Your task to perform on an android device: Play the last video I watched on Youtube Image 0: 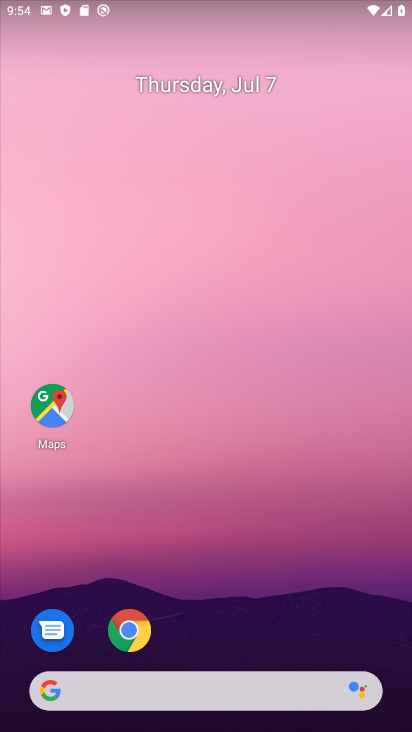
Step 0: click (146, 116)
Your task to perform on an android device: Play the last video I watched on Youtube Image 1: 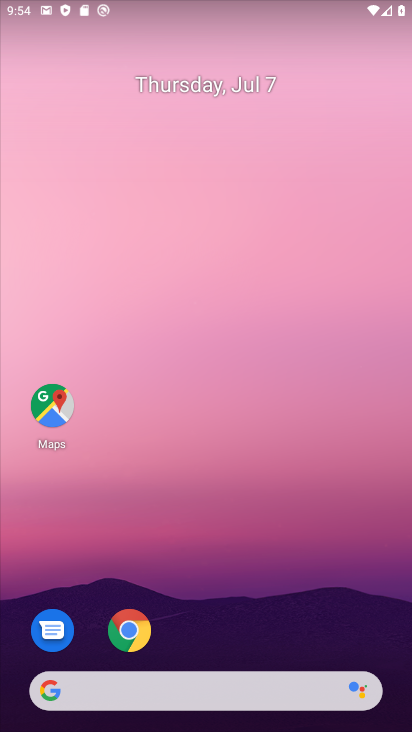
Step 1: drag from (15, 703) to (180, 10)
Your task to perform on an android device: Play the last video I watched on Youtube Image 2: 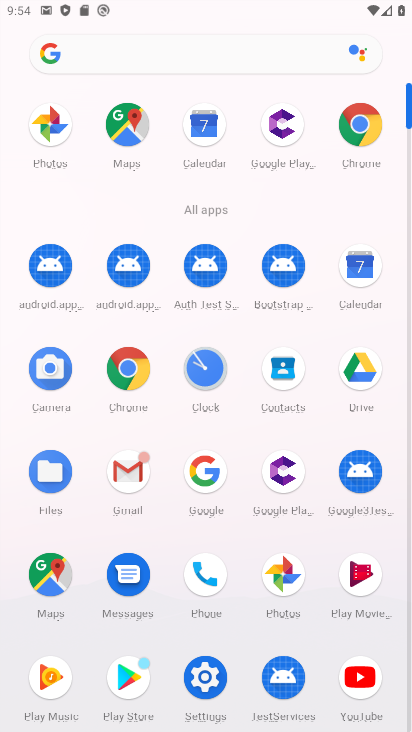
Step 2: click (365, 683)
Your task to perform on an android device: Play the last video I watched on Youtube Image 3: 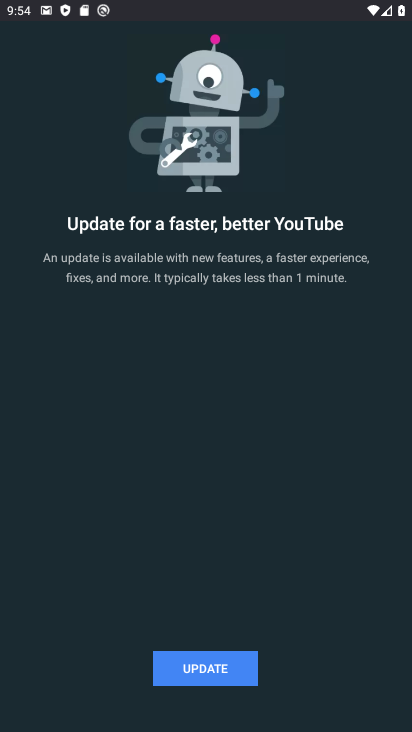
Step 3: click (192, 668)
Your task to perform on an android device: Play the last video I watched on Youtube Image 4: 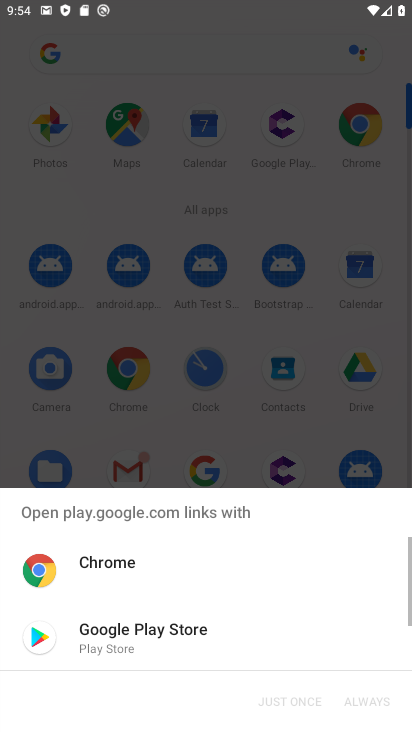
Step 4: click (129, 617)
Your task to perform on an android device: Play the last video I watched on Youtube Image 5: 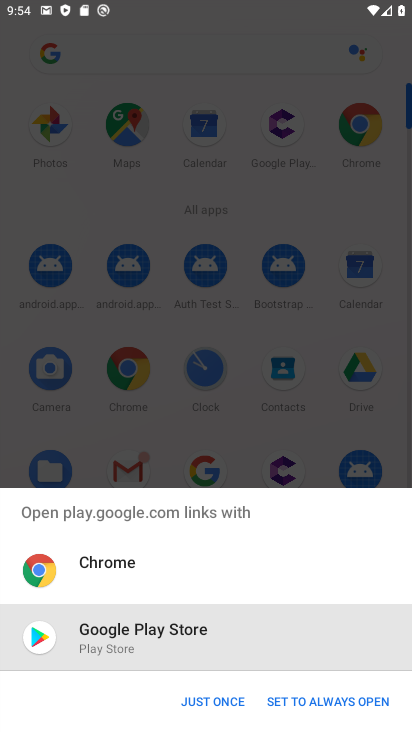
Step 5: click (184, 706)
Your task to perform on an android device: Play the last video I watched on Youtube Image 6: 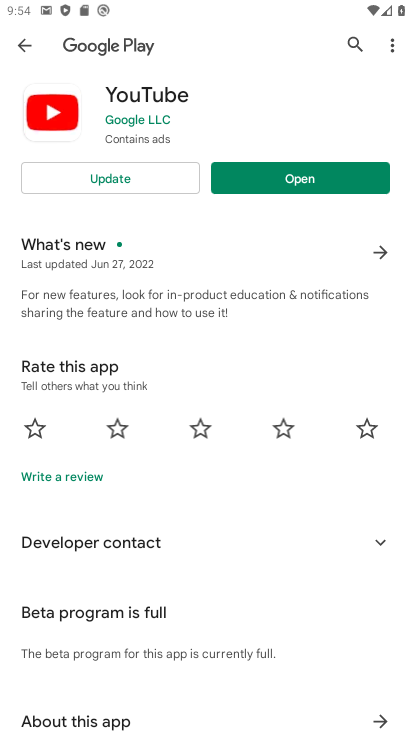
Step 6: click (291, 182)
Your task to perform on an android device: Play the last video I watched on Youtube Image 7: 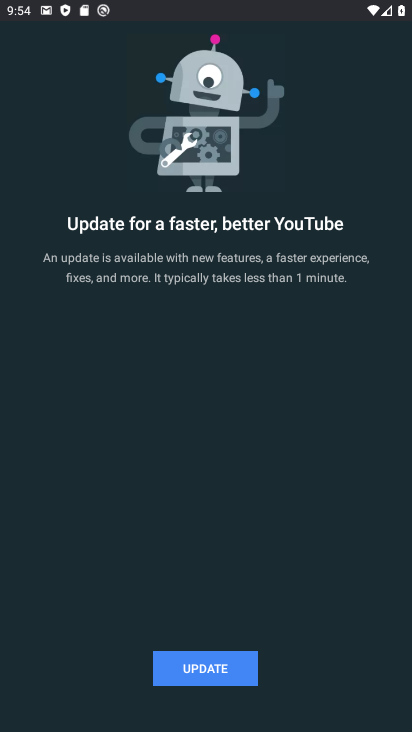
Step 7: click (207, 656)
Your task to perform on an android device: Play the last video I watched on Youtube Image 8: 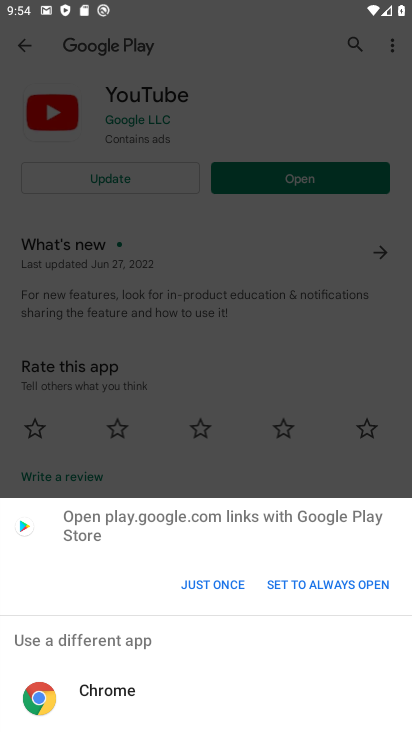
Step 8: click (212, 586)
Your task to perform on an android device: Play the last video I watched on Youtube Image 9: 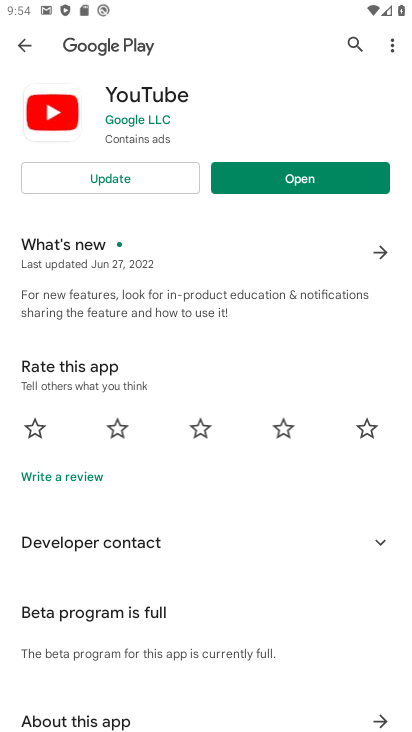
Step 9: click (293, 176)
Your task to perform on an android device: Play the last video I watched on Youtube Image 10: 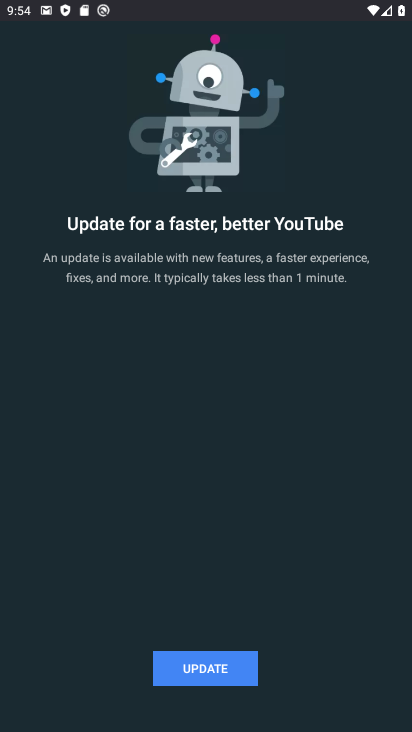
Step 10: task complete